Your task to perform on an android device: Go to Android settings Image 0: 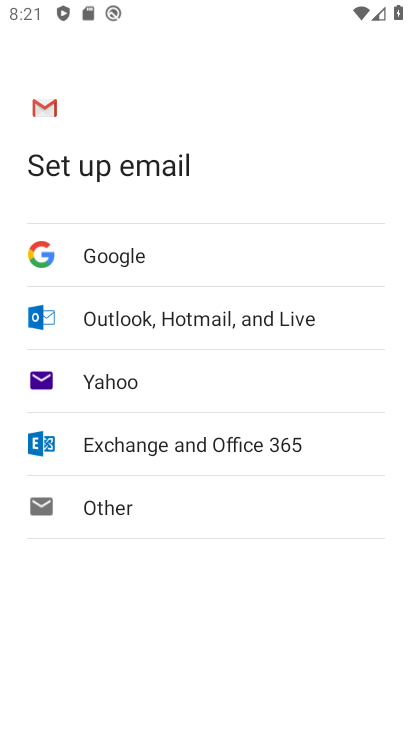
Step 0: press home button
Your task to perform on an android device: Go to Android settings Image 1: 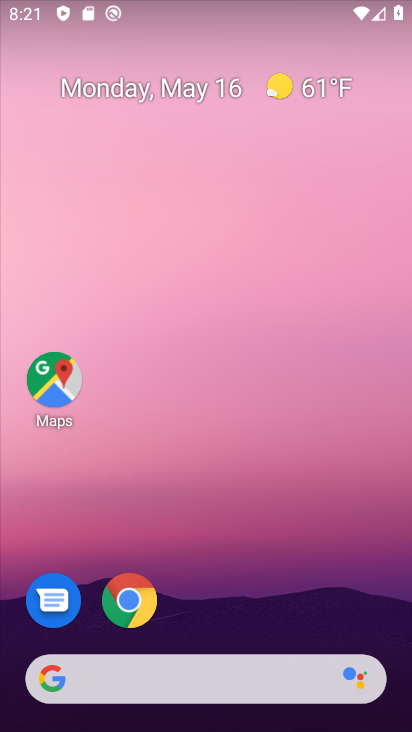
Step 1: drag from (250, 593) to (291, 32)
Your task to perform on an android device: Go to Android settings Image 2: 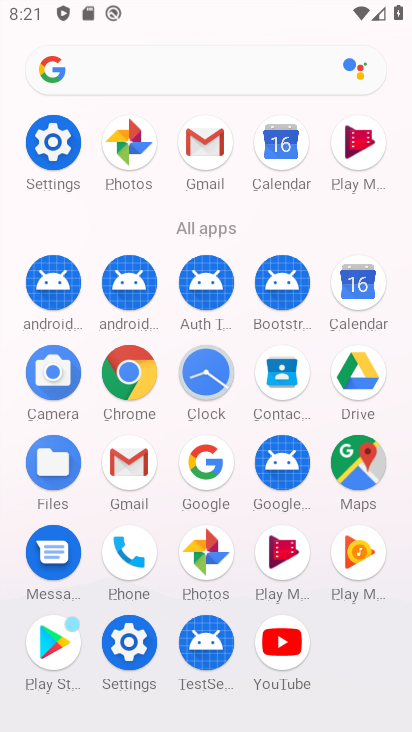
Step 2: click (48, 153)
Your task to perform on an android device: Go to Android settings Image 3: 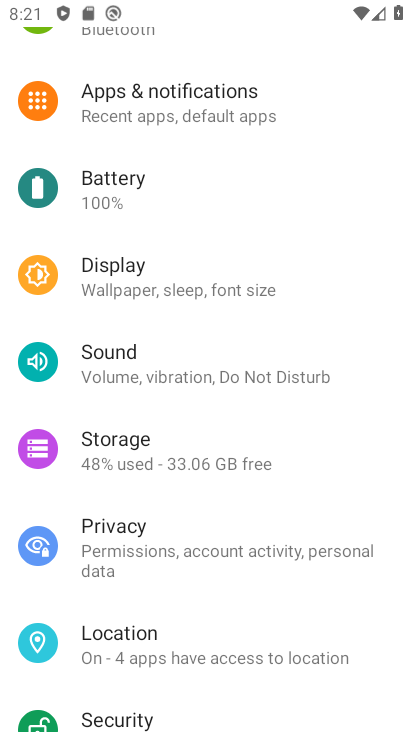
Step 3: drag from (172, 637) to (176, 454)
Your task to perform on an android device: Go to Android settings Image 4: 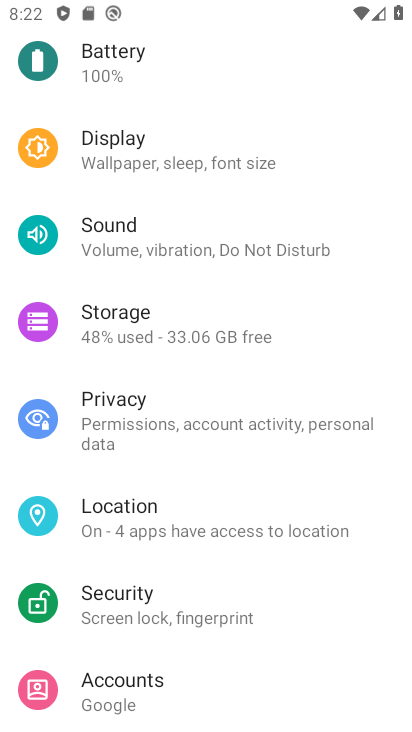
Step 4: drag from (182, 662) to (147, 479)
Your task to perform on an android device: Go to Android settings Image 5: 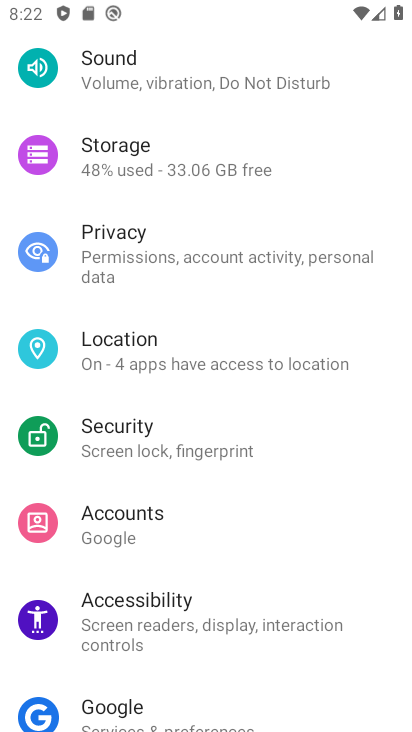
Step 5: drag from (134, 689) to (170, 531)
Your task to perform on an android device: Go to Android settings Image 6: 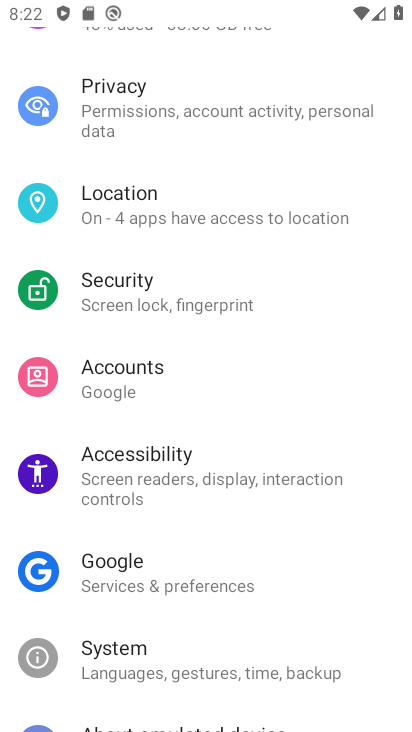
Step 6: click (109, 643)
Your task to perform on an android device: Go to Android settings Image 7: 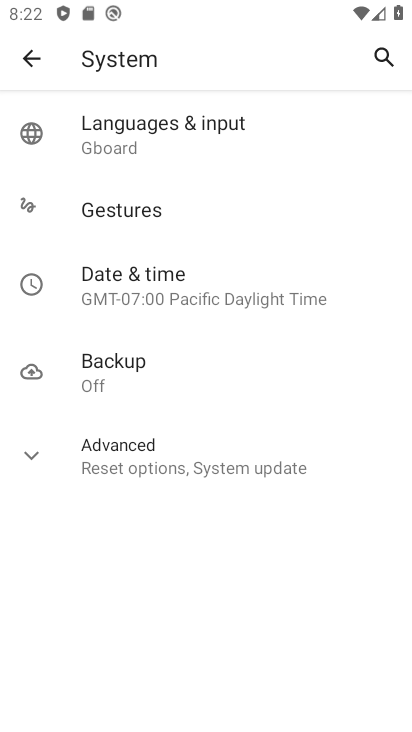
Step 7: task complete